Your task to perform on an android device: Open Google Image 0: 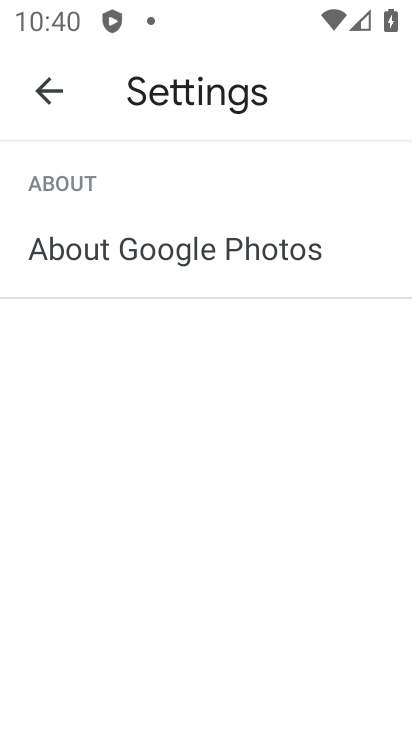
Step 0: press home button
Your task to perform on an android device: Open Google Image 1: 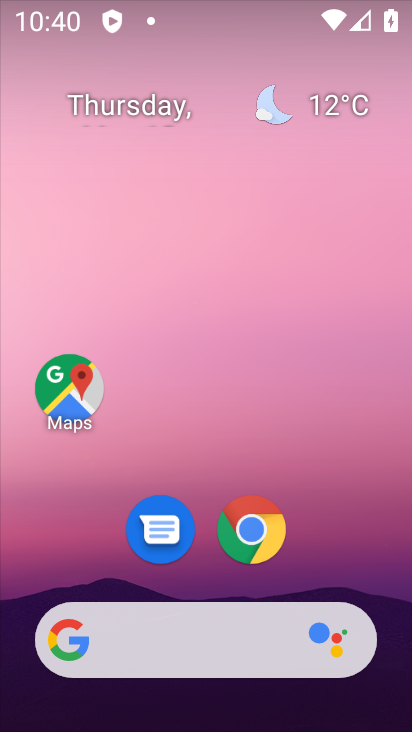
Step 1: drag from (176, 664) to (318, 217)
Your task to perform on an android device: Open Google Image 2: 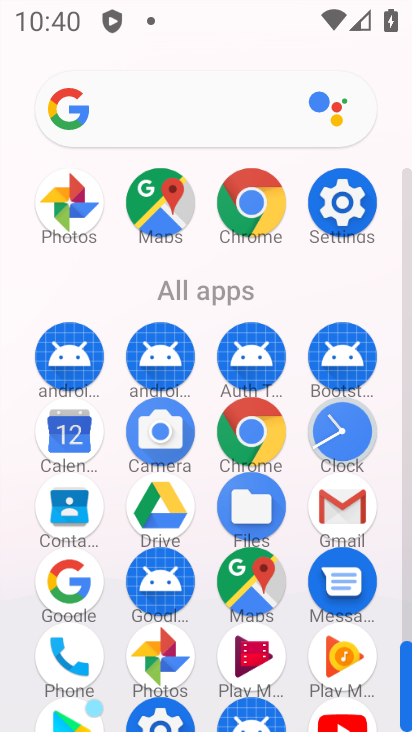
Step 2: click (62, 577)
Your task to perform on an android device: Open Google Image 3: 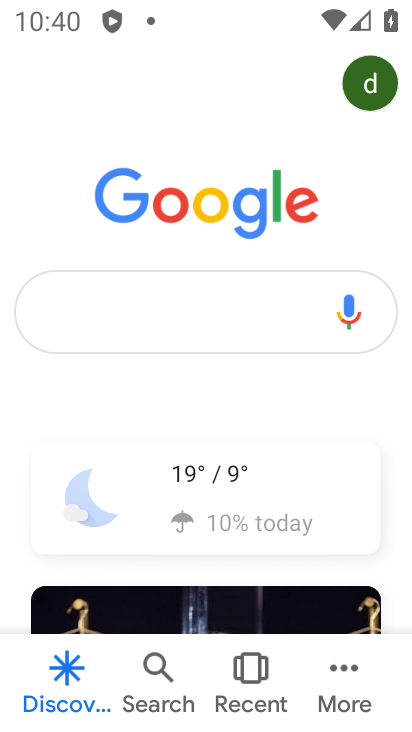
Step 3: task complete